Your task to perform on an android device: search for starred emails in the gmail app Image 0: 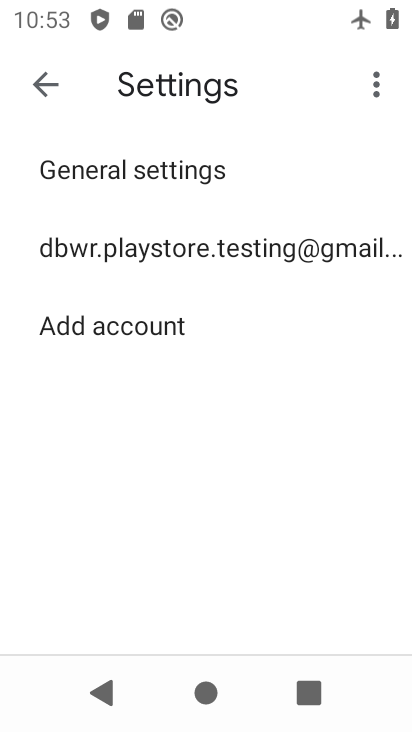
Step 0: press home button
Your task to perform on an android device: search for starred emails in the gmail app Image 1: 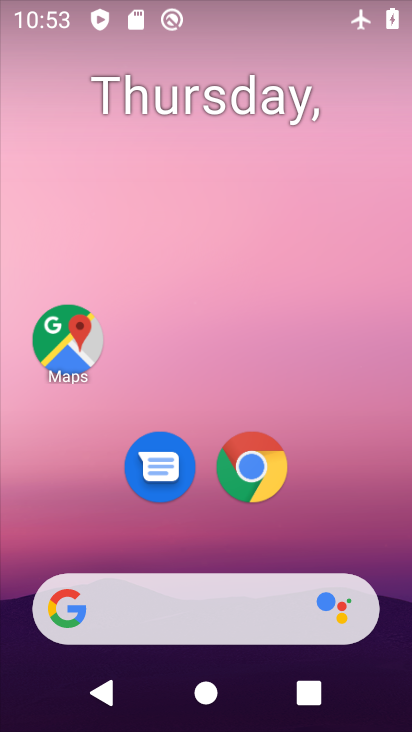
Step 1: drag from (302, 538) to (288, 3)
Your task to perform on an android device: search for starred emails in the gmail app Image 2: 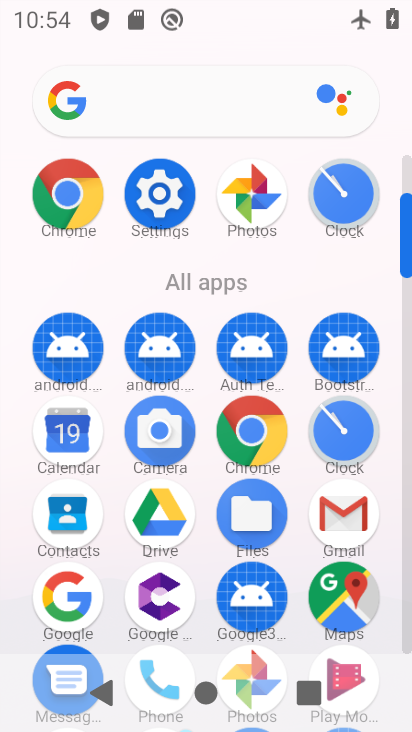
Step 2: click (334, 510)
Your task to perform on an android device: search for starred emails in the gmail app Image 3: 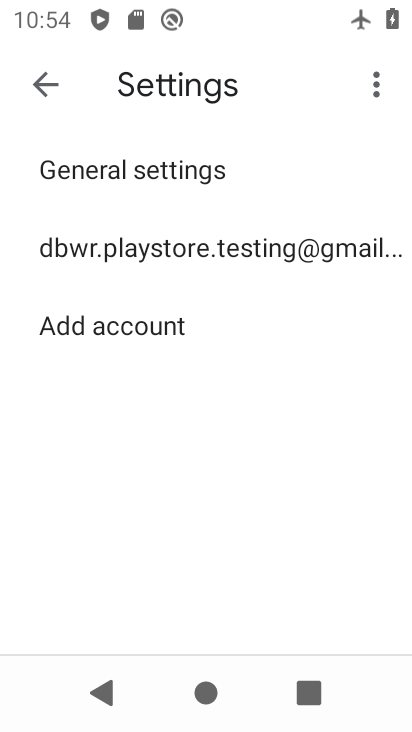
Step 3: click (50, 91)
Your task to perform on an android device: search for starred emails in the gmail app Image 4: 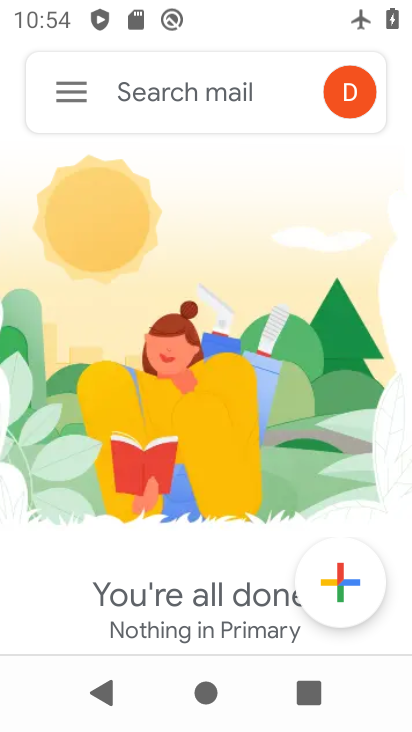
Step 4: click (66, 79)
Your task to perform on an android device: search for starred emails in the gmail app Image 5: 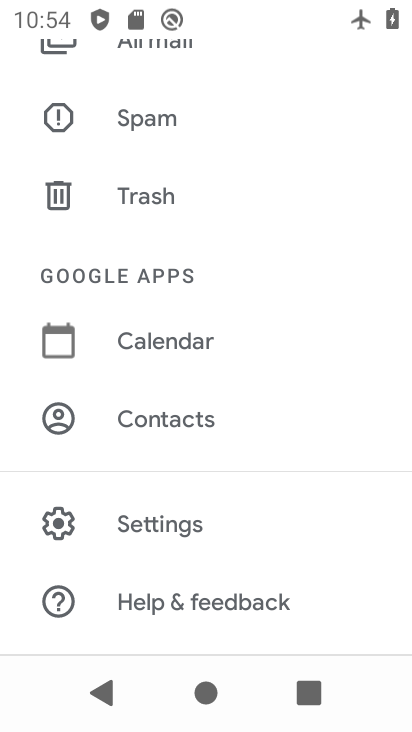
Step 5: drag from (207, 240) to (215, 720)
Your task to perform on an android device: search for starred emails in the gmail app Image 6: 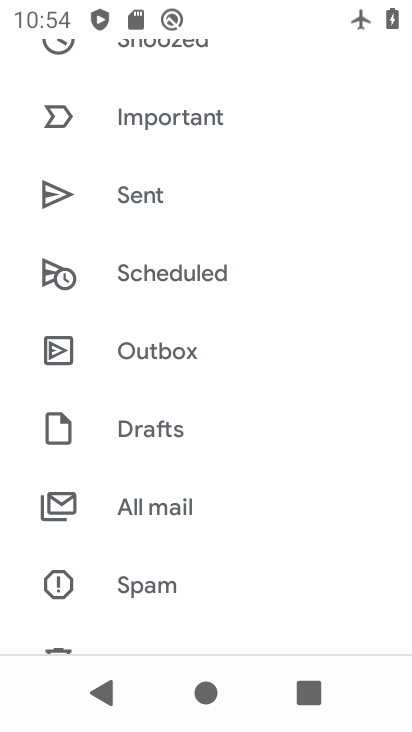
Step 6: drag from (187, 257) to (213, 632)
Your task to perform on an android device: search for starred emails in the gmail app Image 7: 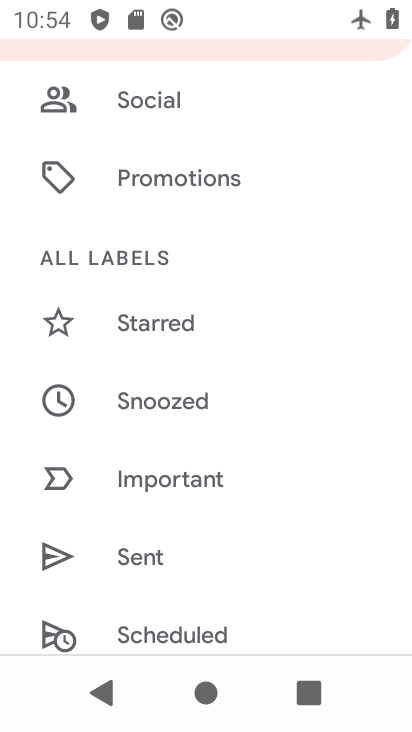
Step 7: click (176, 328)
Your task to perform on an android device: search for starred emails in the gmail app Image 8: 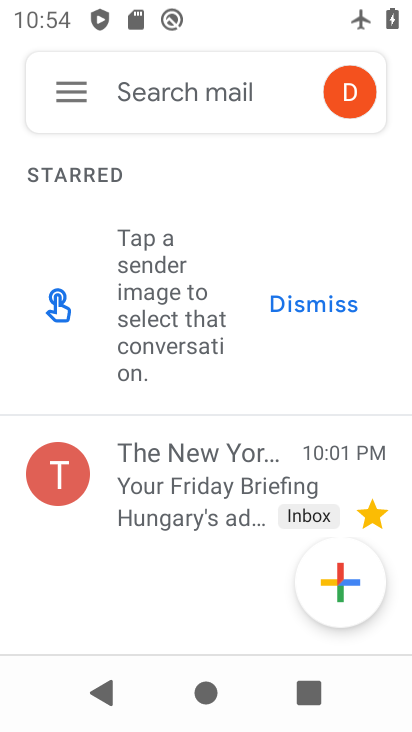
Step 8: task complete